Your task to perform on an android device: Clear the cart on costco. Add "rayovac triple a" to the cart on costco, then select checkout. Image 0: 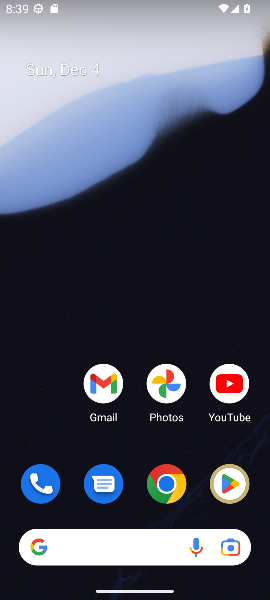
Step 0: click (166, 487)
Your task to perform on an android device: Clear the cart on costco. Add "rayovac triple a" to the cart on costco, then select checkout. Image 1: 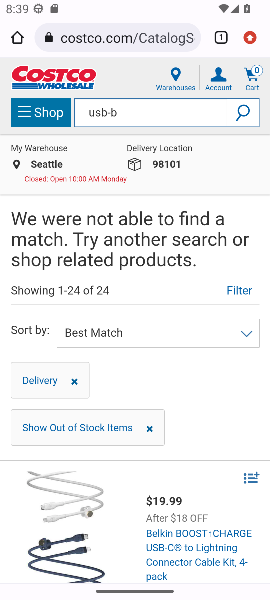
Step 1: click (253, 76)
Your task to perform on an android device: Clear the cart on costco. Add "rayovac triple a" to the cart on costco, then select checkout. Image 2: 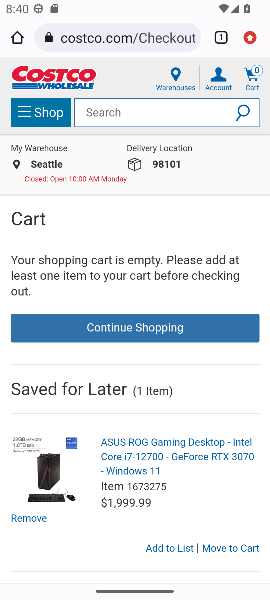
Step 2: click (108, 113)
Your task to perform on an android device: Clear the cart on costco. Add "rayovac triple a" to the cart on costco, then select checkout. Image 3: 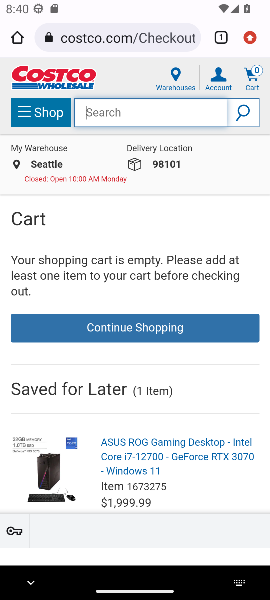
Step 3: type "rayovac triple a"
Your task to perform on an android device: Clear the cart on costco. Add "rayovac triple a" to the cart on costco, then select checkout. Image 4: 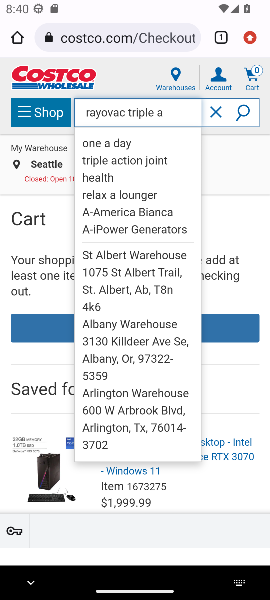
Step 4: click (242, 108)
Your task to perform on an android device: Clear the cart on costco. Add "rayovac triple a" to the cart on costco, then select checkout. Image 5: 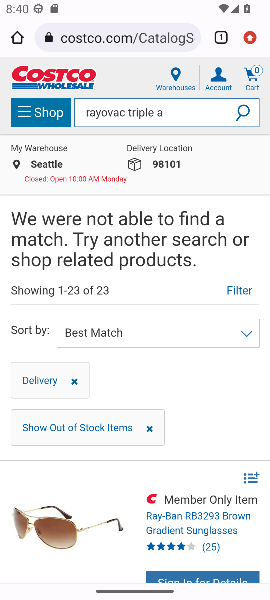
Step 5: task complete